Your task to perform on an android device: Go to Google maps Image 0: 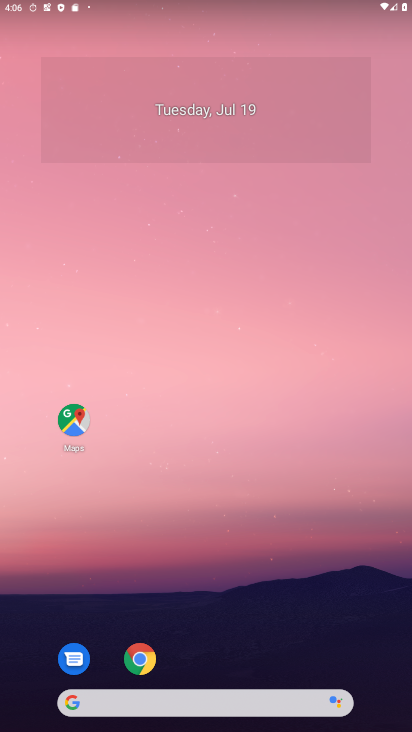
Step 0: drag from (285, 448) to (319, 39)
Your task to perform on an android device: Go to Google maps Image 1: 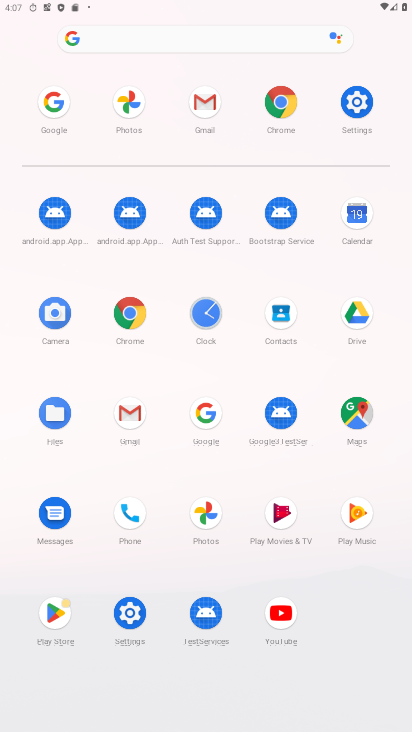
Step 1: click (356, 414)
Your task to perform on an android device: Go to Google maps Image 2: 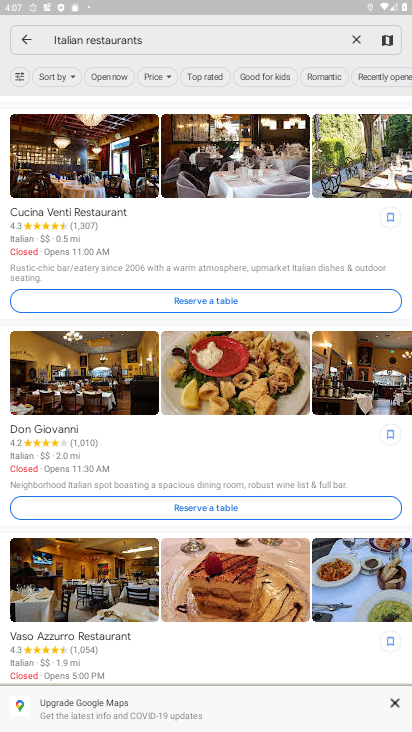
Step 2: task complete